Your task to perform on an android device: turn off notifications settings in the gmail app Image 0: 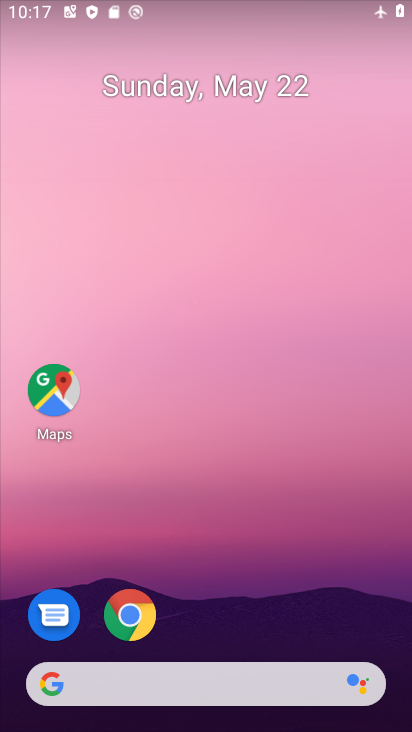
Step 0: drag from (315, 623) to (240, 157)
Your task to perform on an android device: turn off notifications settings in the gmail app Image 1: 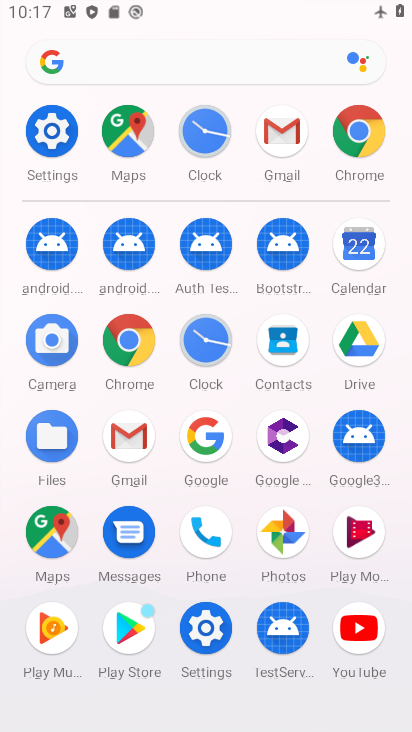
Step 1: click (278, 133)
Your task to perform on an android device: turn off notifications settings in the gmail app Image 2: 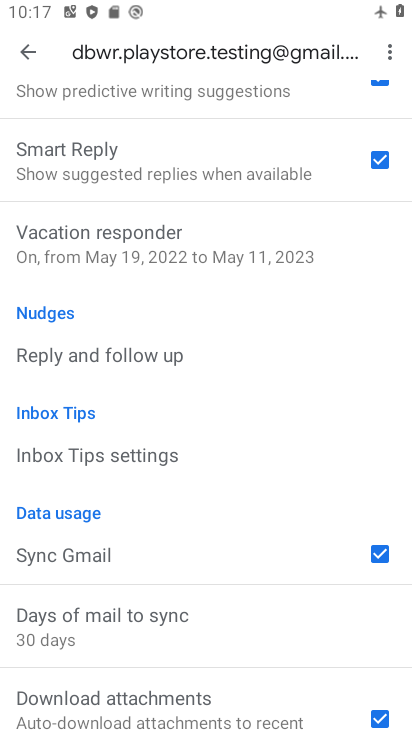
Step 2: click (33, 43)
Your task to perform on an android device: turn off notifications settings in the gmail app Image 3: 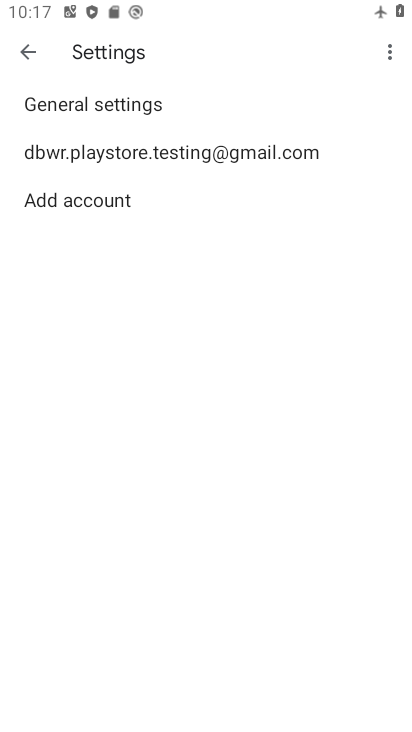
Step 3: click (24, 47)
Your task to perform on an android device: turn off notifications settings in the gmail app Image 4: 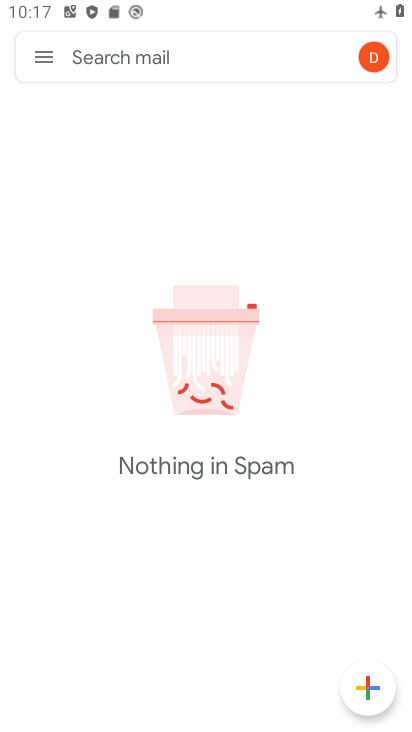
Step 4: click (46, 56)
Your task to perform on an android device: turn off notifications settings in the gmail app Image 5: 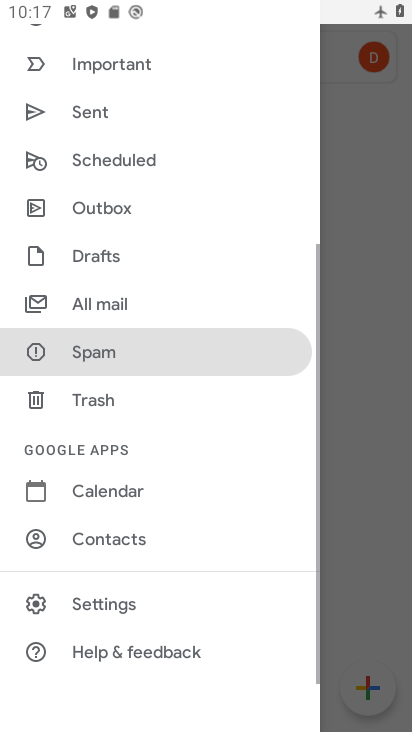
Step 5: click (112, 596)
Your task to perform on an android device: turn off notifications settings in the gmail app Image 6: 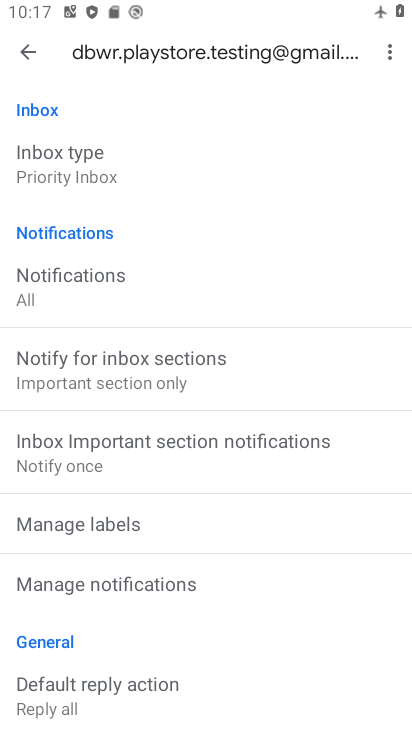
Step 6: drag from (219, 549) to (259, 257)
Your task to perform on an android device: turn off notifications settings in the gmail app Image 7: 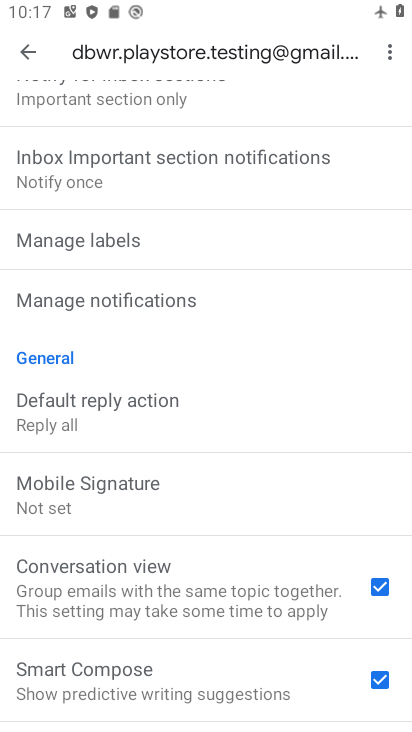
Step 7: click (118, 304)
Your task to perform on an android device: turn off notifications settings in the gmail app Image 8: 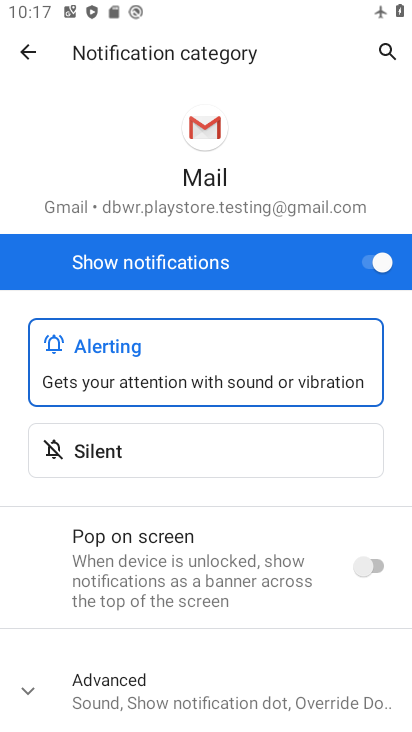
Step 8: click (373, 255)
Your task to perform on an android device: turn off notifications settings in the gmail app Image 9: 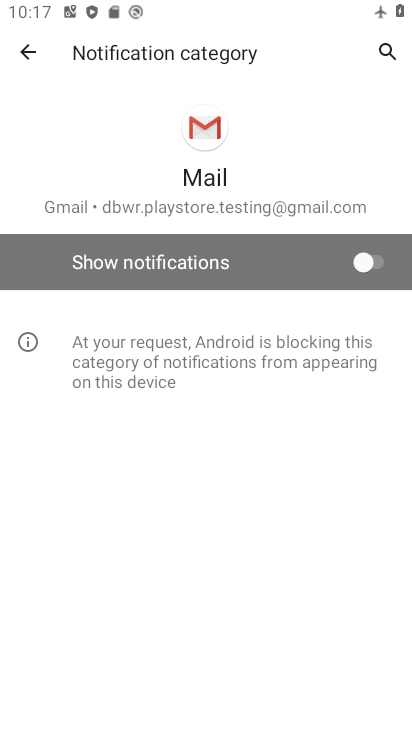
Step 9: task complete